Your task to perform on an android device: Open wifi settings Image 0: 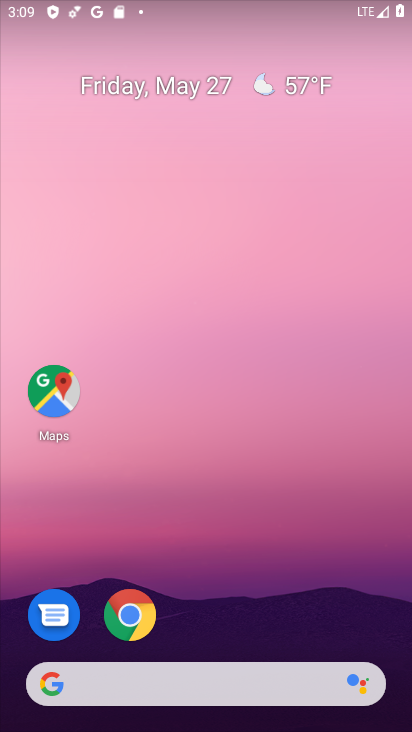
Step 0: drag from (216, 645) to (304, 176)
Your task to perform on an android device: Open wifi settings Image 1: 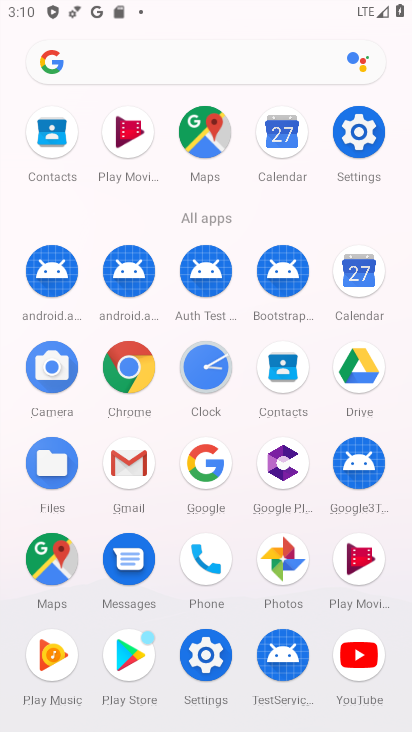
Step 1: click (362, 127)
Your task to perform on an android device: Open wifi settings Image 2: 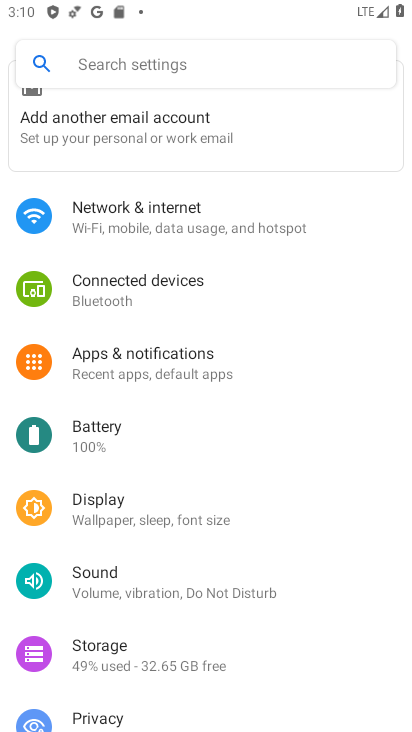
Step 2: click (205, 230)
Your task to perform on an android device: Open wifi settings Image 3: 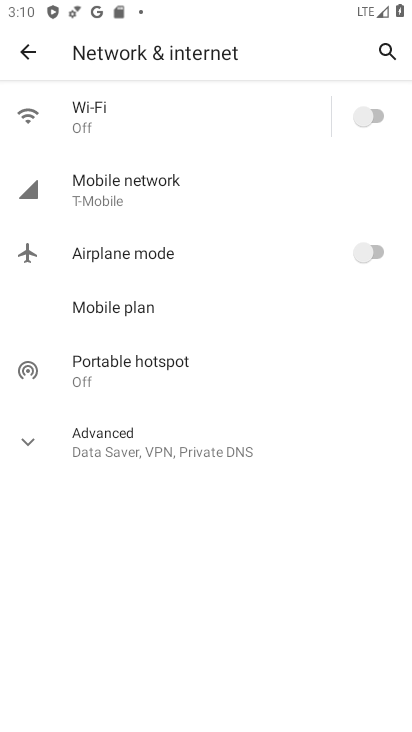
Step 3: click (216, 143)
Your task to perform on an android device: Open wifi settings Image 4: 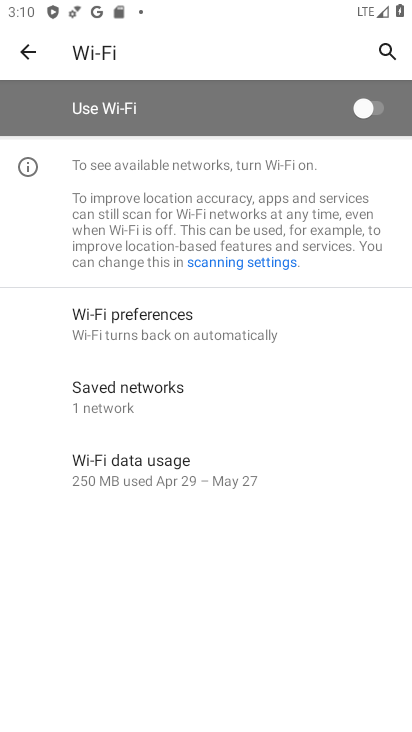
Step 4: task complete